Your task to perform on an android device: Search for vegetarian restaurants on Maps Image 0: 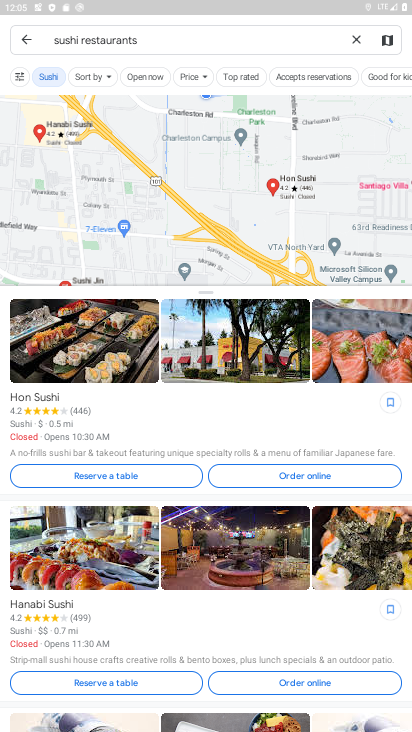
Step 0: click (352, 40)
Your task to perform on an android device: Search for vegetarian restaurants on Maps Image 1: 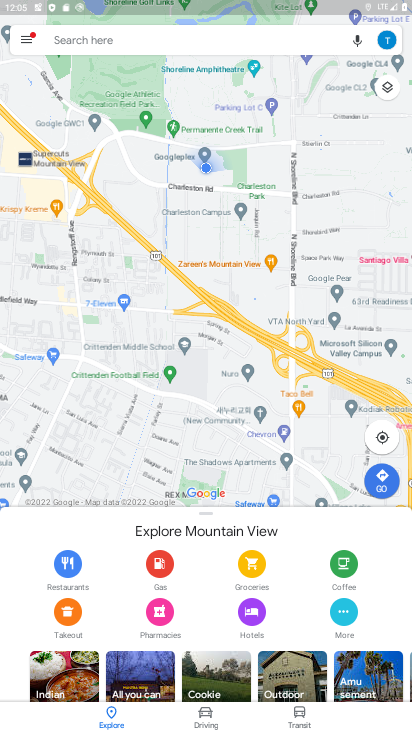
Step 1: click (108, 40)
Your task to perform on an android device: Search for vegetarian restaurants on Maps Image 2: 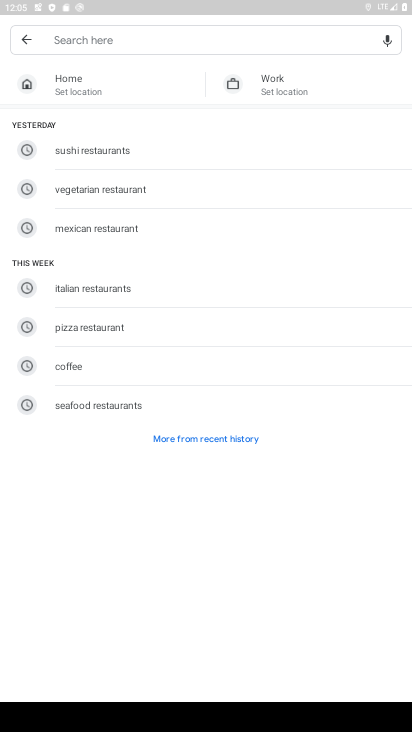
Step 2: click (151, 193)
Your task to perform on an android device: Search for vegetarian restaurants on Maps Image 3: 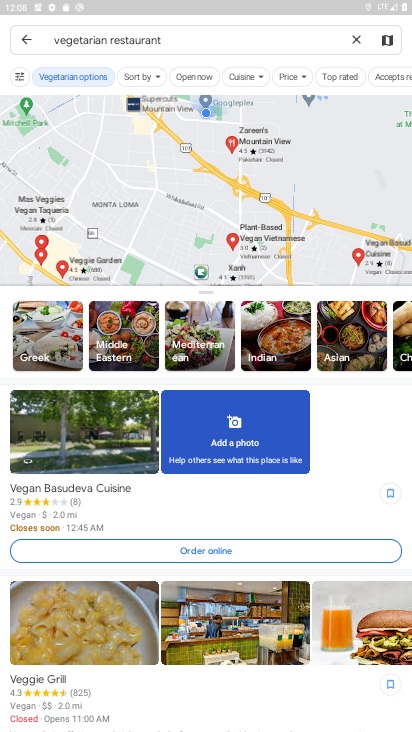
Step 3: task complete